Your task to perform on an android device: install app "Chime – Mobile Banking" Image 0: 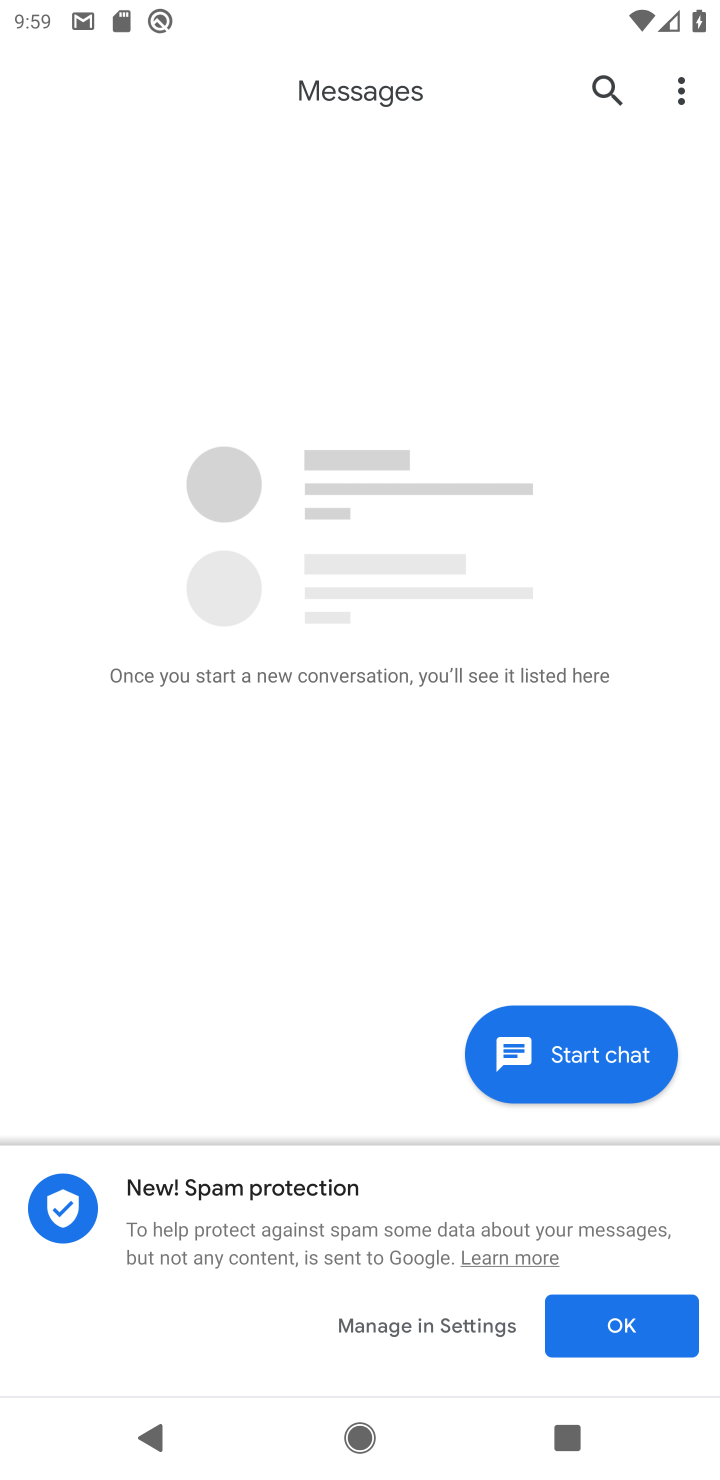
Step 0: press home button
Your task to perform on an android device: install app "Chime – Mobile Banking" Image 1: 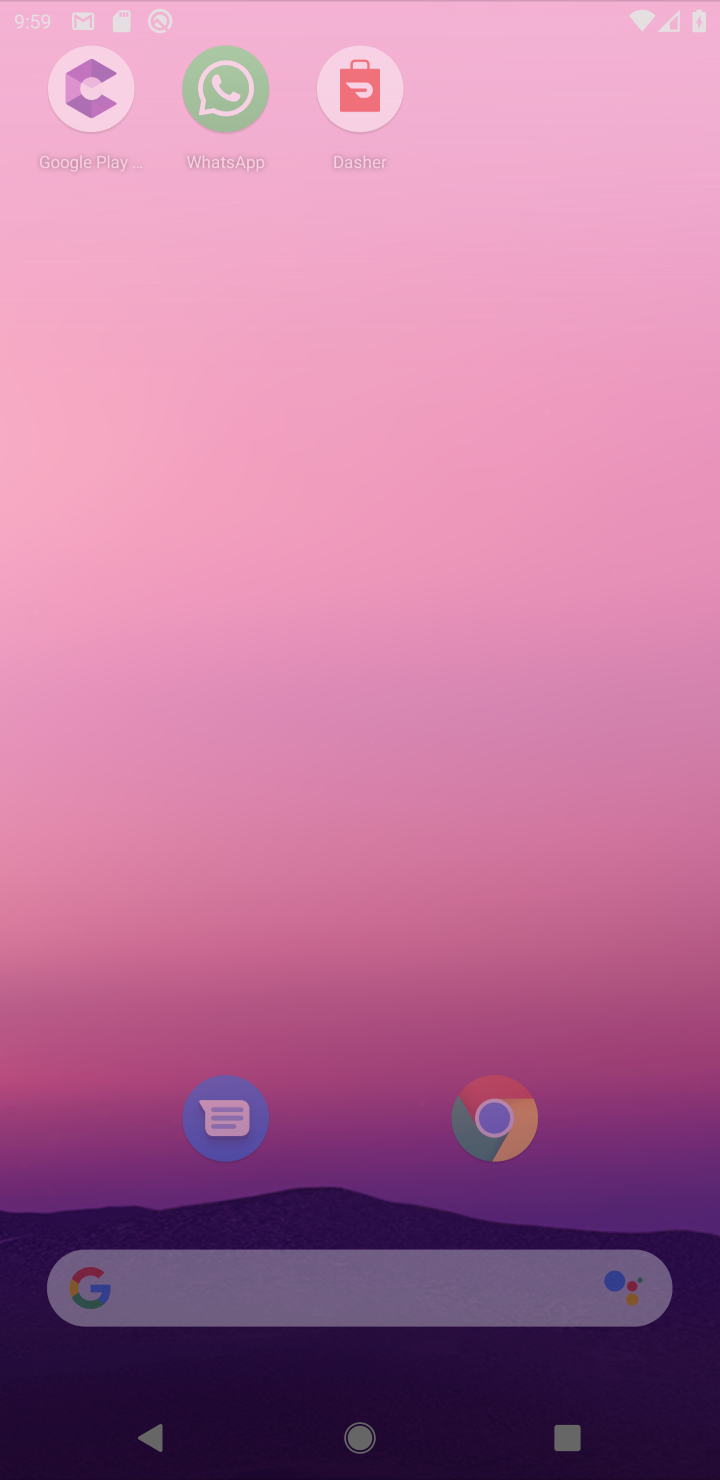
Step 1: press home button
Your task to perform on an android device: install app "Chime – Mobile Banking" Image 2: 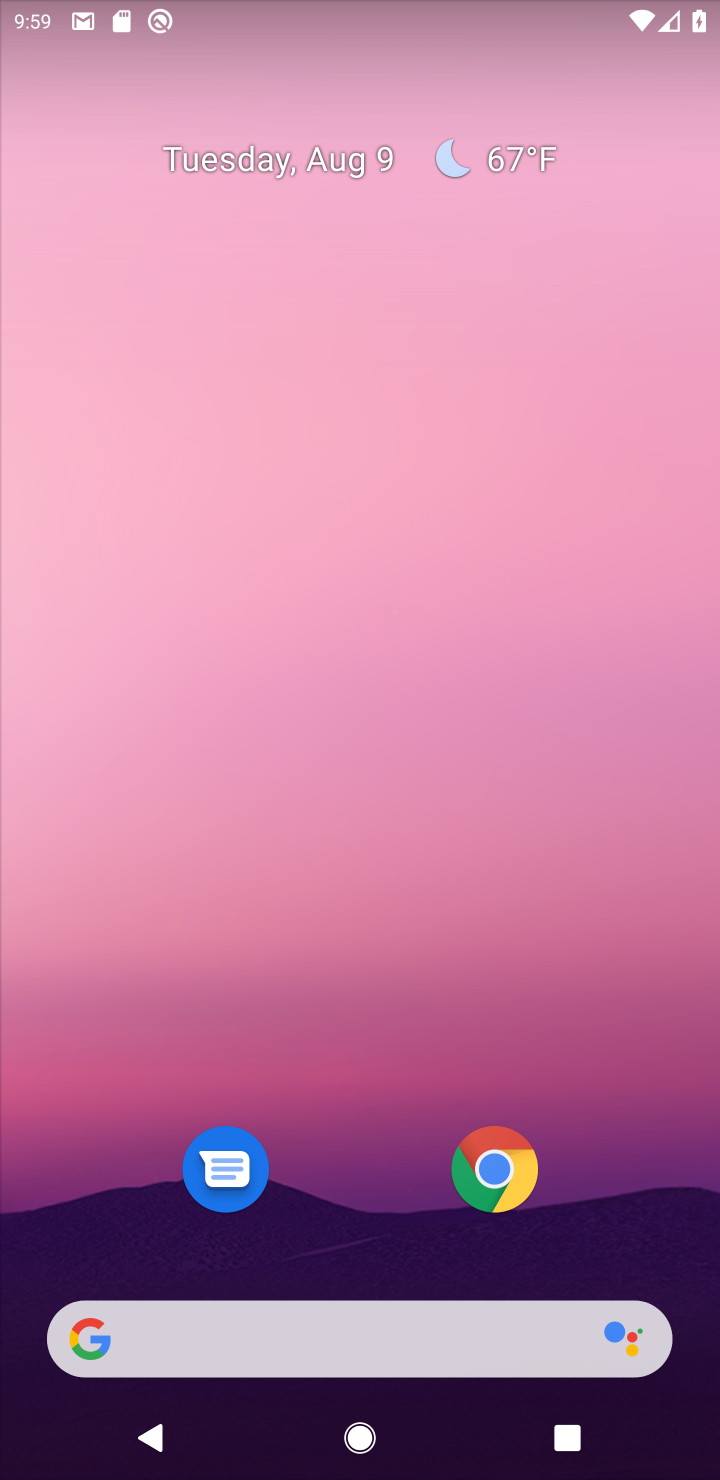
Step 2: drag from (614, 1084) to (614, 114)
Your task to perform on an android device: install app "Chime – Mobile Banking" Image 3: 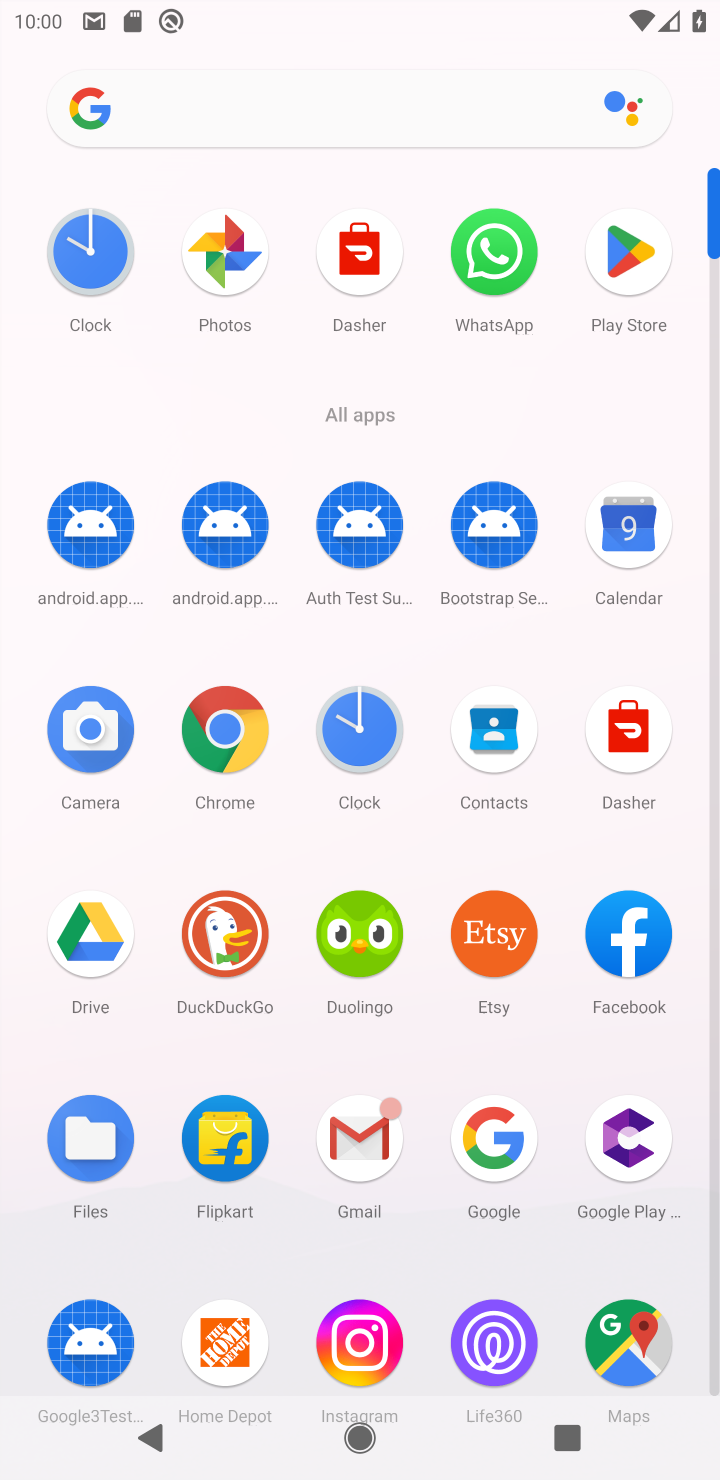
Step 3: click (625, 258)
Your task to perform on an android device: install app "Chime – Mobile Banking" Image 4: 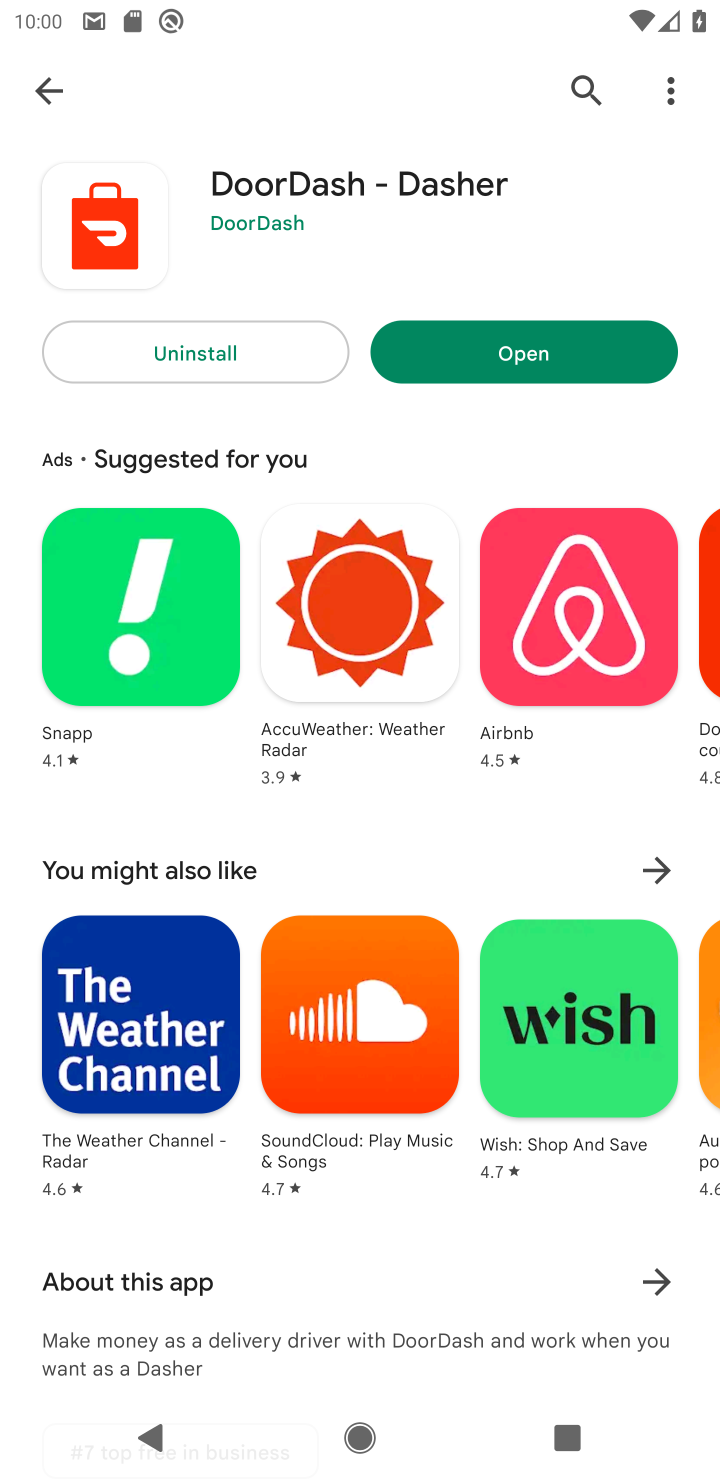
Step 4: click (585, 86)
Your task to perform on an android device: install app "Chime – Mobile Banking" Image 5: 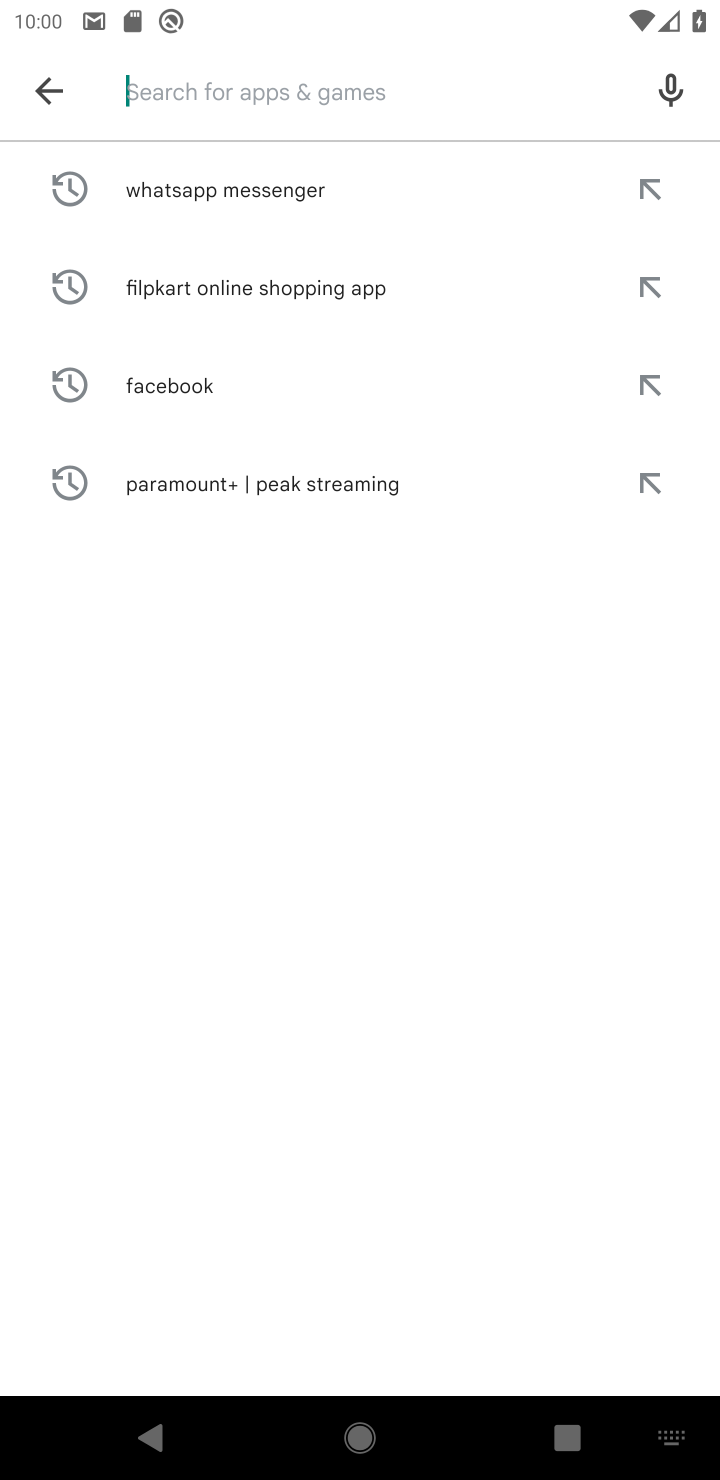
Step 5: click (415, 87)
Your task to perform on an android device: install app "Chime – Mobile Banking" Image 6: 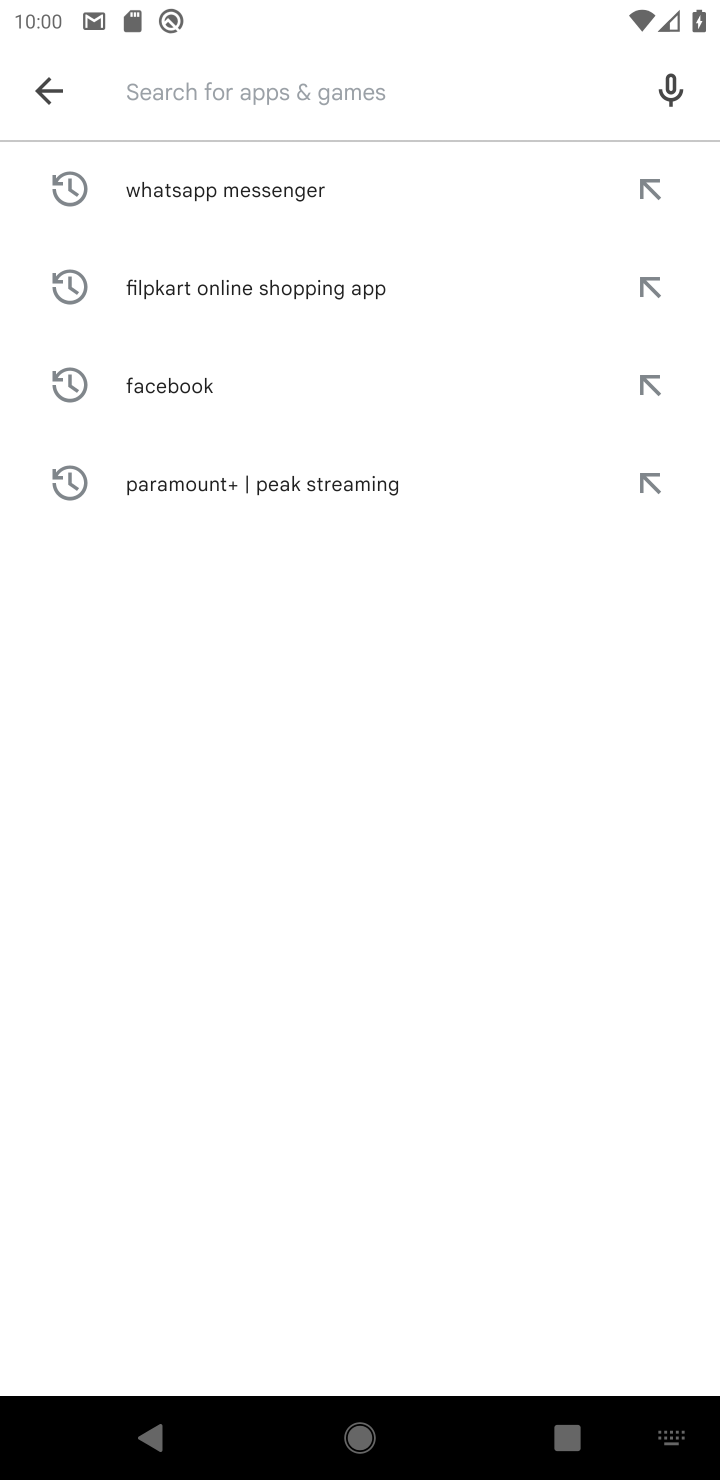
Step 6: type "Chime – Mobile Banking"
Your task to perform on an android device: install app "Chime – Mobile Banking" Image 7: 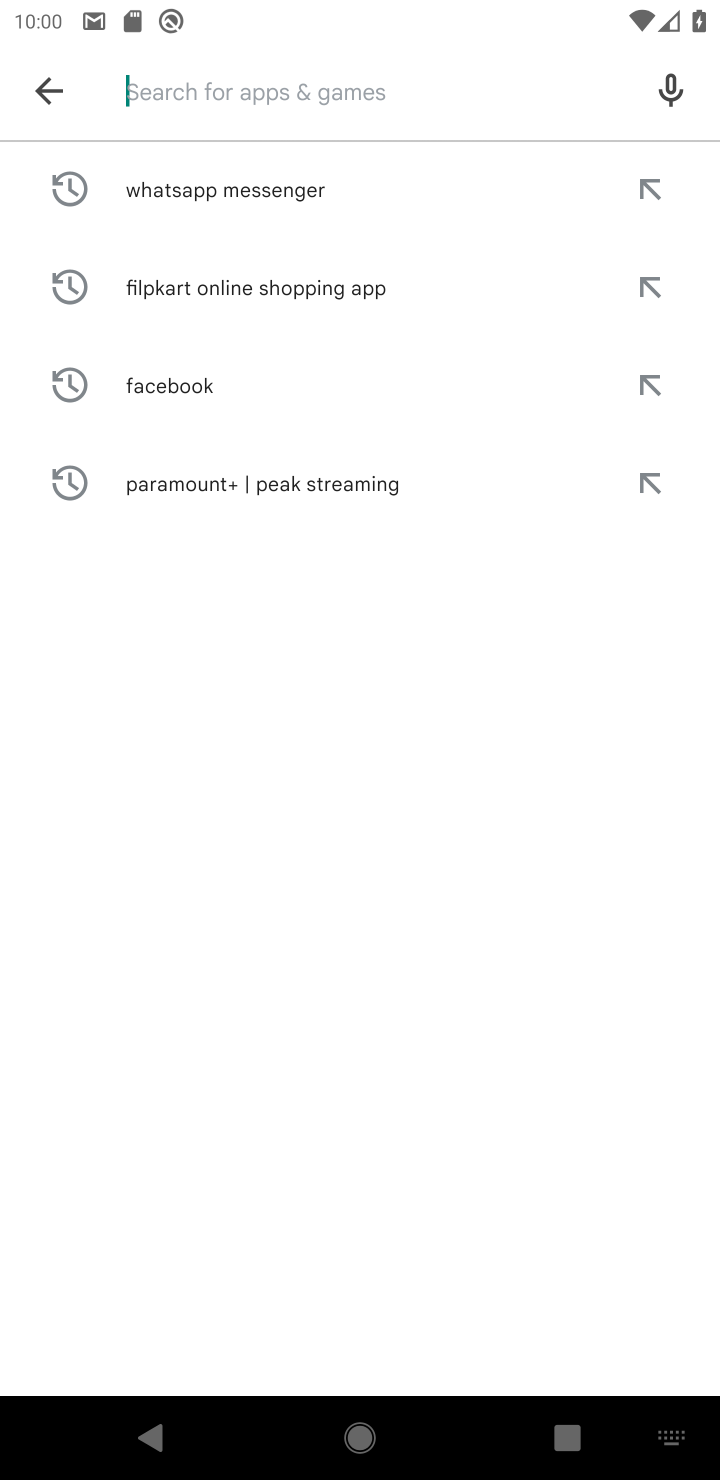
Step 7: type "Chime – Mobile Banking"
Your task to perform on an android device: install app "Chime – Mobile Banking" Image 8: 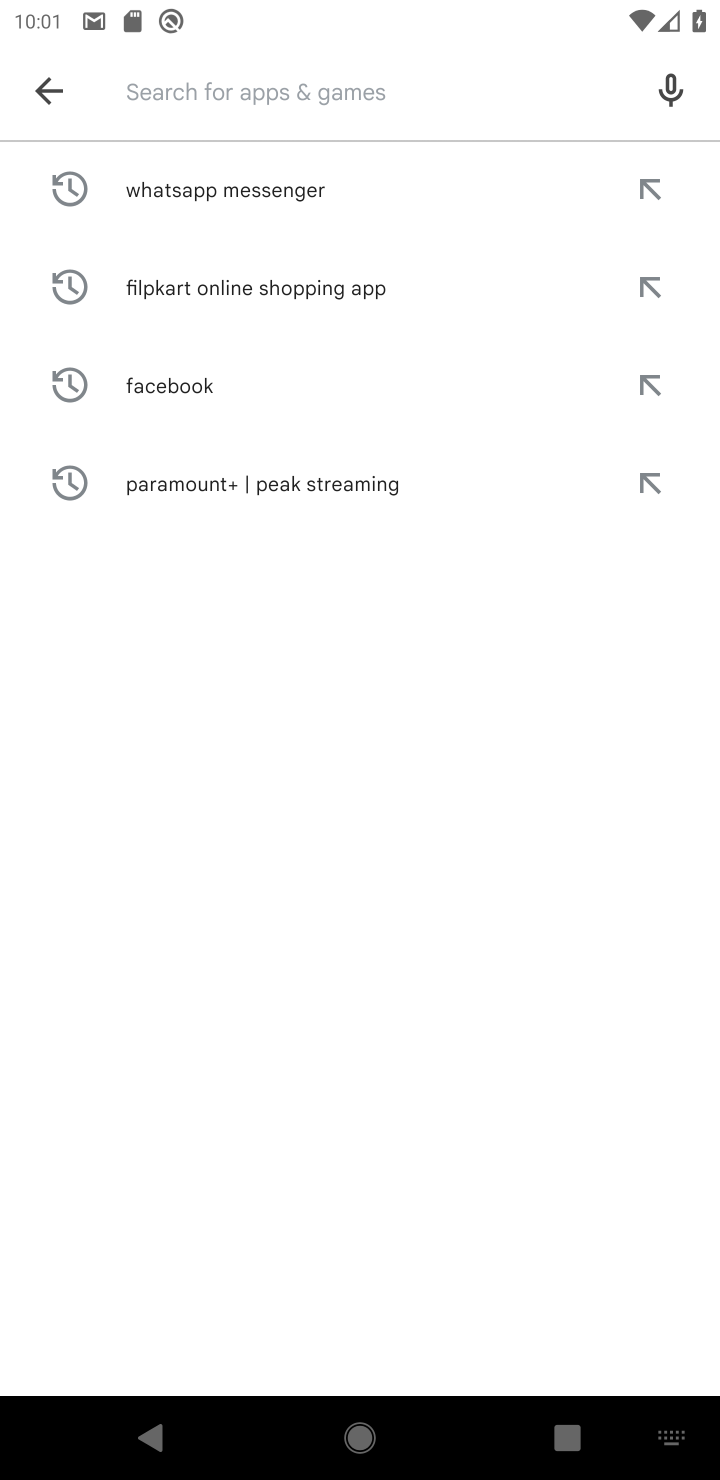
Step 8: task complete